Your task to perform on an android device: Is it going to rain tomorrow? Image 0: 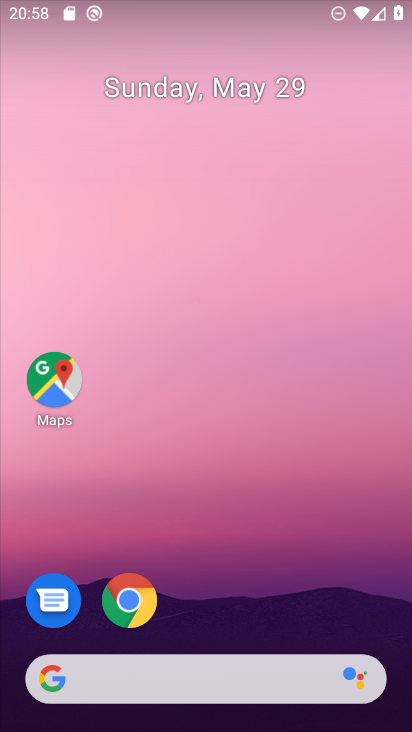
Step 0: drag from (399, 556) to (327, 191)
Your task to perform on an android device: Is it going to rain tomorrow? Image 1: 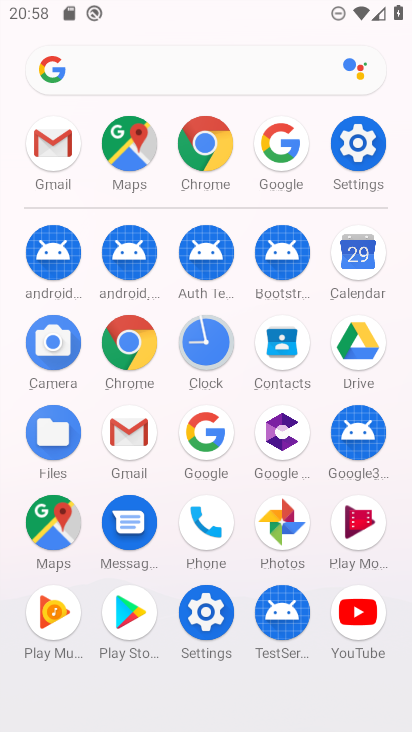
Step 1: click (193, 158)
Your task to perform on an android device: Is it going to rain tomorrow? Image 2: 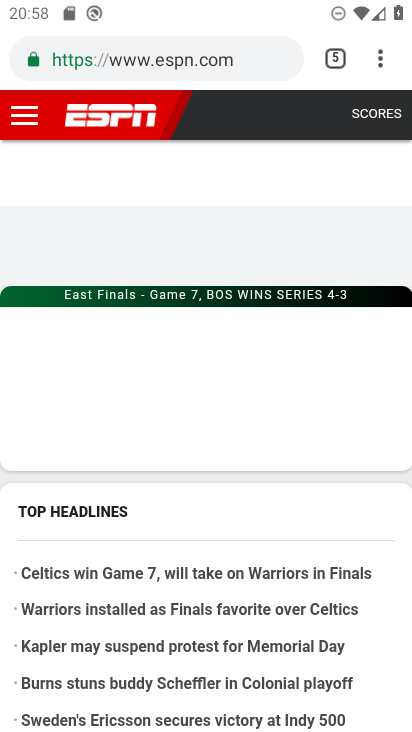
Step 2: click (179, 64)
Your task to perform on an android device: Is it going to rain tomorrow? Image 3: 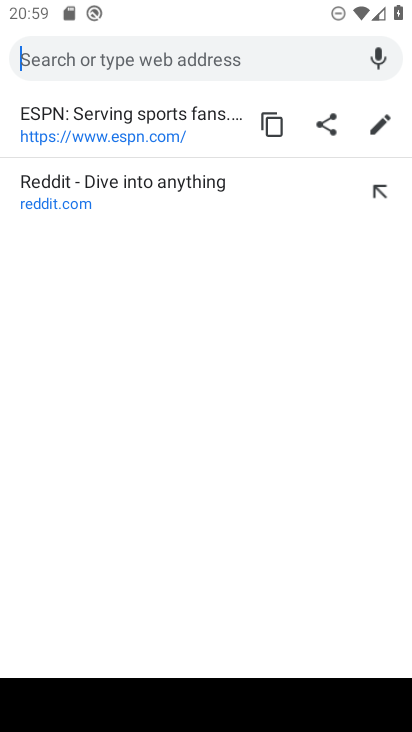
Step 3: type "is it going to rain tomorrow"
Your task to perform on an android device: Is it going to rain tomorrow? Image 4: 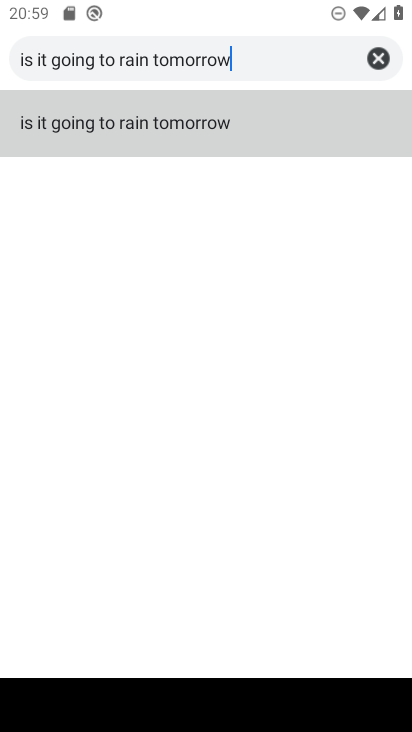
Step 4: click (194, 128)
Your task to perform on an android device: Is it going to rain tomorrow? Image 5: 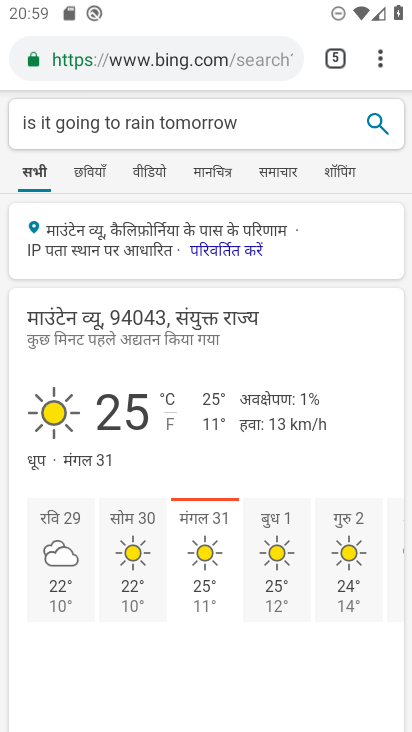
Step 5: task complete